Your task to perform on an android device: Open Reddit.com Image 0: 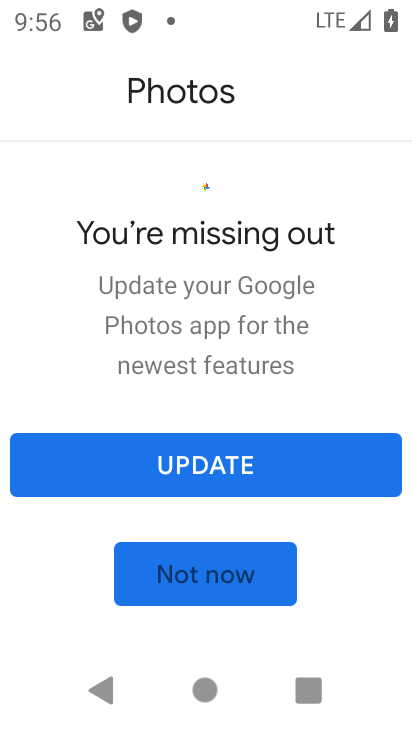
Step 0: press home button
Your task to perform on an android device: Open Reddit.com Image 1: 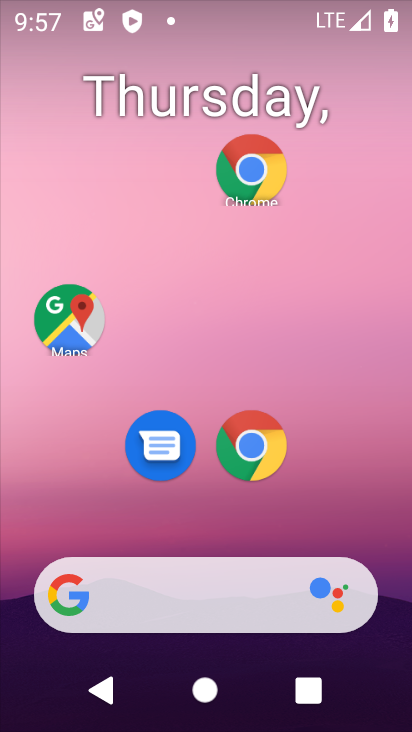
Step 1: click (268, 457)
Your task to perform on an android device: Open Reddit.com Image 2: 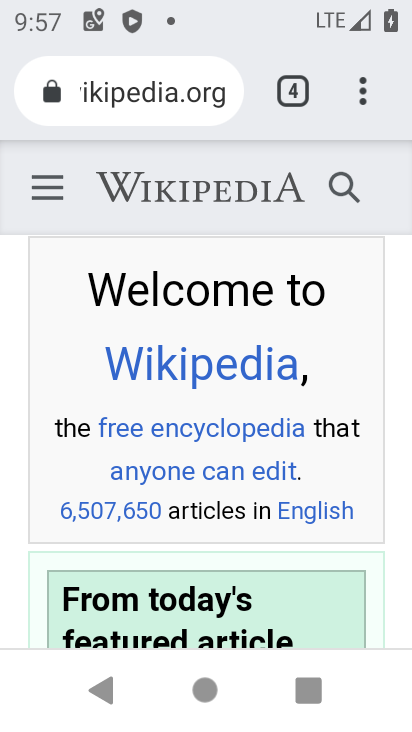
Step 2: click (291, 83)
Your task to perform on an android device: Open Reddit.com Image 3: 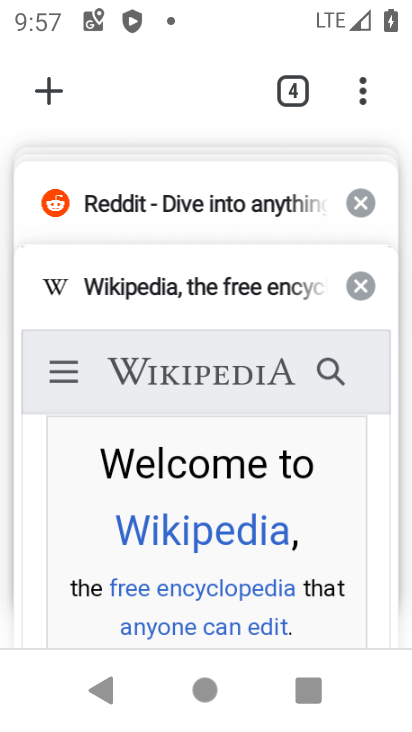
Step 3: click (179, 232)
Your task to perform on an android device: Open Reddit.com Image 4: 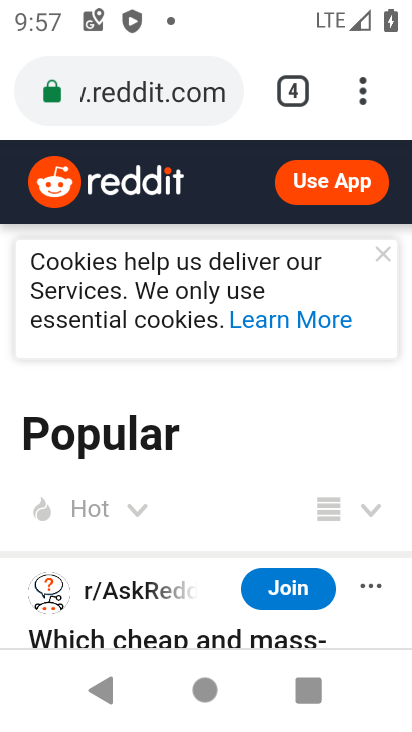
Step 4: task complete